Your task to perform on an android device: remove spam from my inbox in the gmail app Image 0: 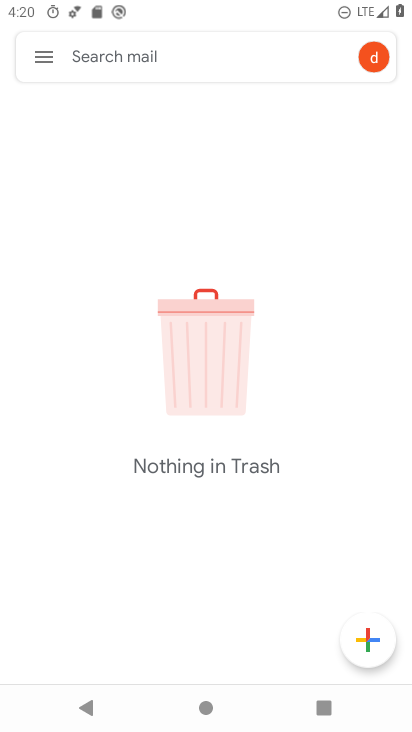
Step 0: press home button
Your task to perform on an android device: remove spam from my inbox in the gmail app Image 1: 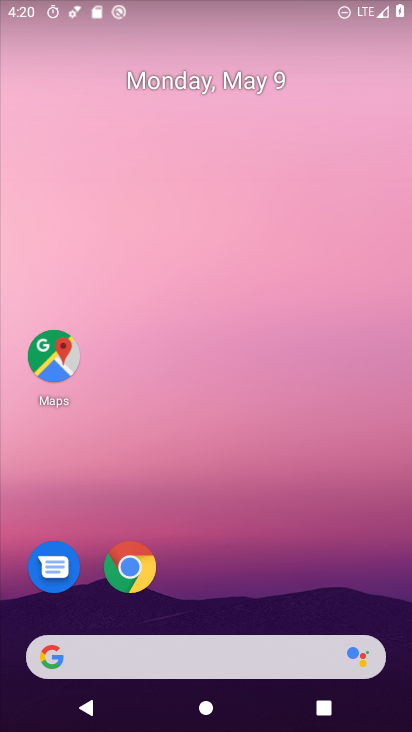
Step 1: drag from (215, 495) to (177, 133)
Your task to perform on an android device: remove spam from my inbox in the gmail app Image 2: 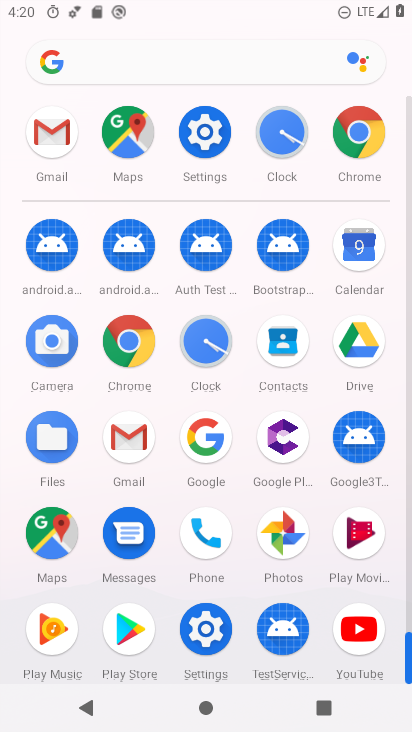
Step 2: click (53, 136)
Your task to perform on an android device: remove spam from my inbox in the gmail app Image 3: 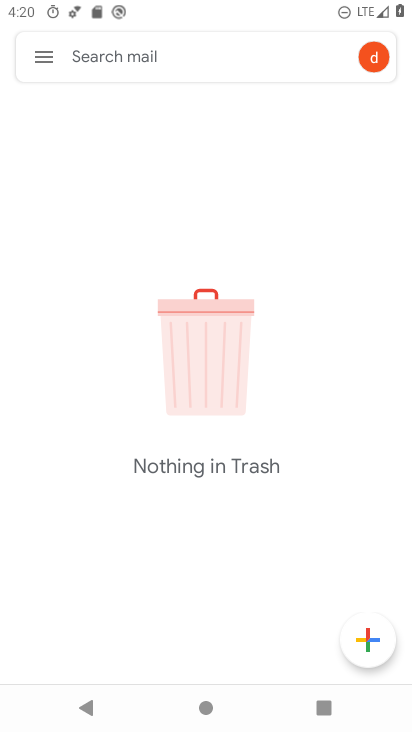
Step 3: click (47, 61)
Your task to perform on an android device: remove spam from my inbox in the gmail app Image 4: 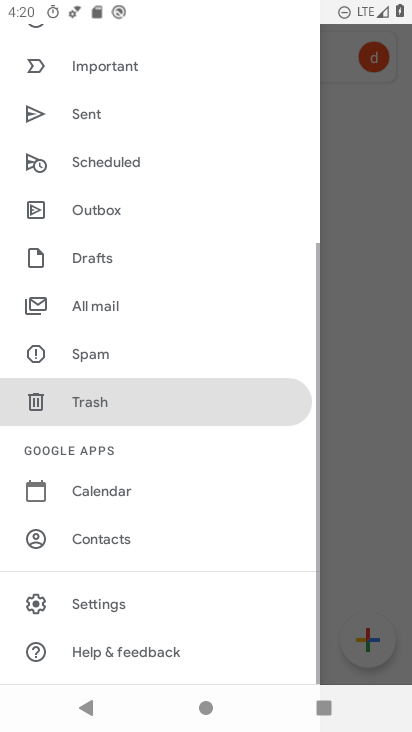
Step 4: click (96, 360)
Your task to perform on an android device: remove spam from my inbox in the gmail app Image 5: 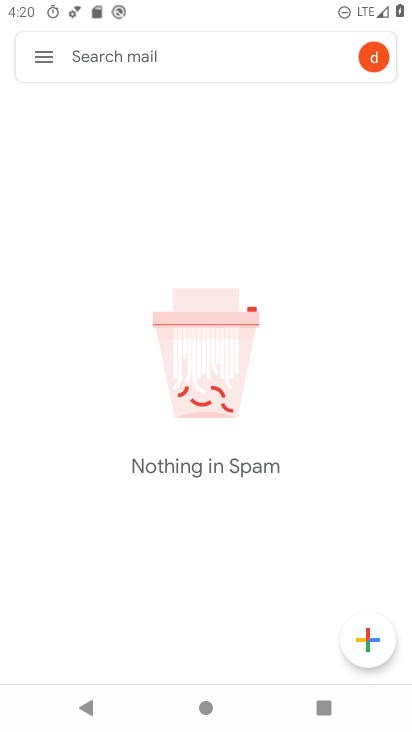
Step 5: task complete